Your task to perform on an android device: Do I have any events tomorrow? Image 0: 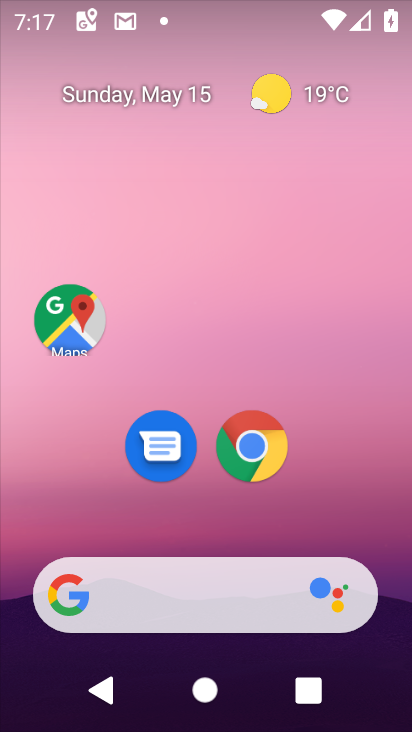
Step 0: drag from (241, 492) to (171, 126)
Your task to perform on an android device: Do I have any events tomorrow? Image 1: 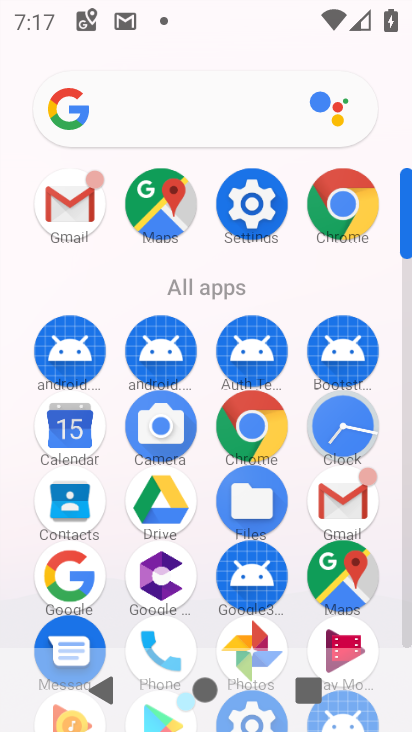
Step 1: click (74, 430)
Your task to perform on an android device: Do I have any events tomorrow? Image 2: 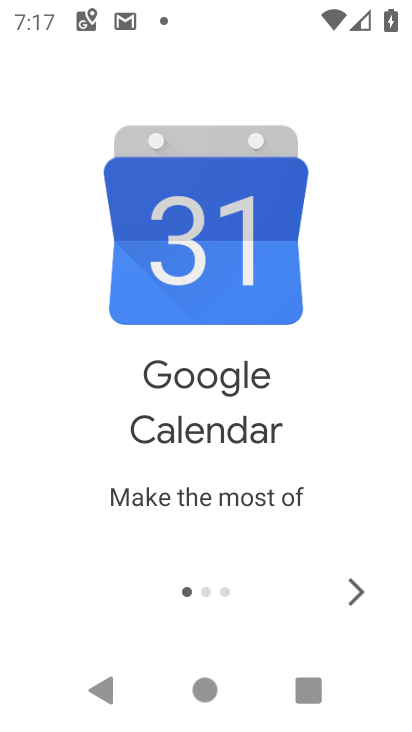
Step 2: click (379, 589)
Your task to perform on an android device: Do I have any events tomorrow? Image 3: 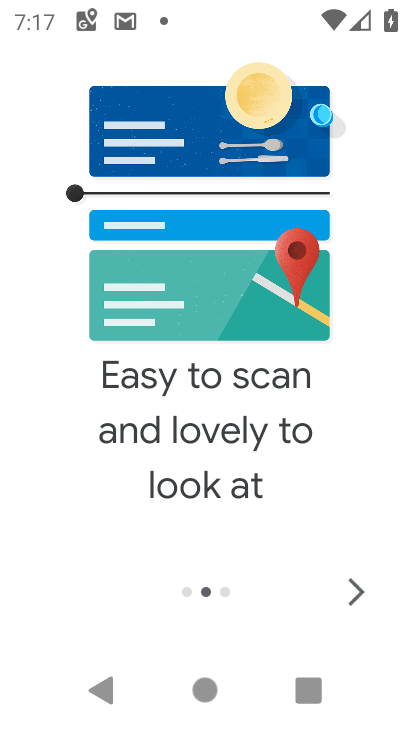
Step 3: click (356, 602)
Your task to perform on an android device: Do I have any events tomorrow? Image 4: 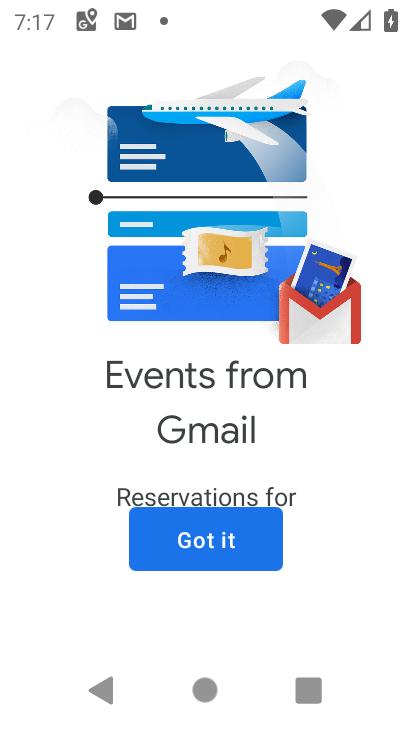
Step 4: click (207, 533)
Your task to perform on an android device: Do I have any events tomorrow? Image 5: 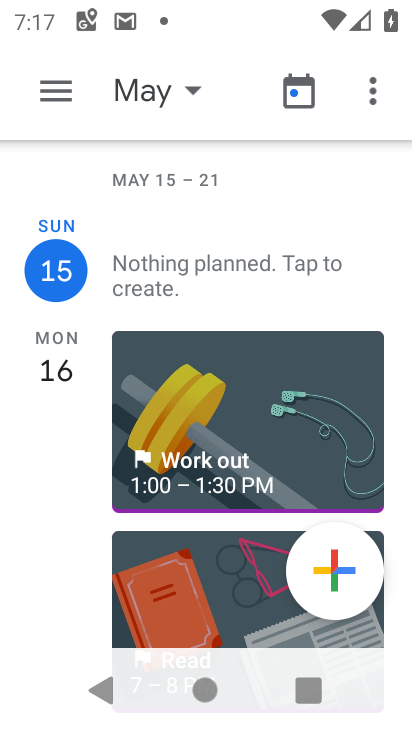
Step 5: task complete